Your task to perform on an android device: check data usage Image 0: 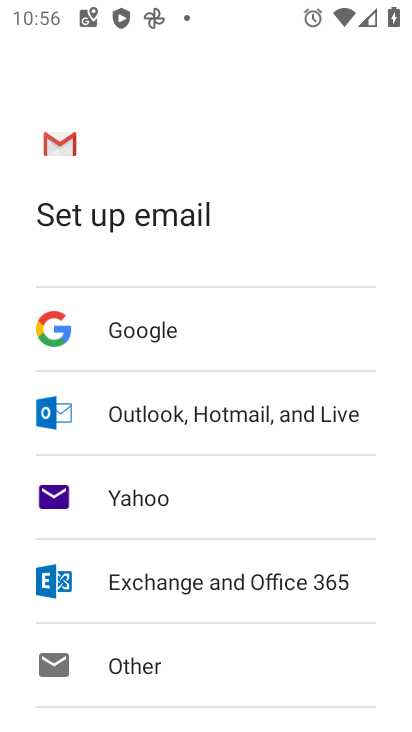
Step 0: press home button
Your task to perform on an android device: check data usage Image 1: 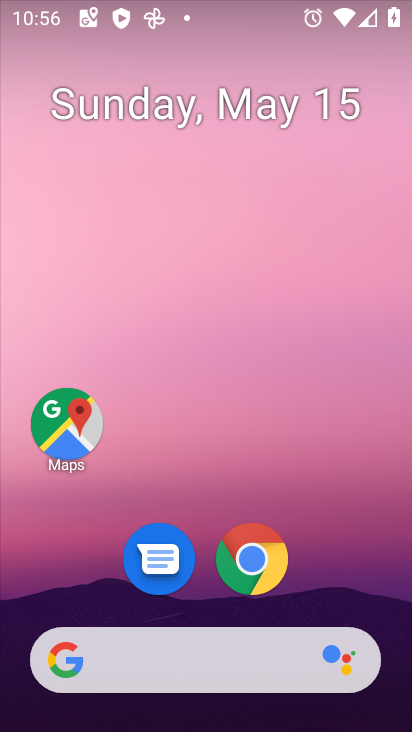
Step 1: click (270, 567)
Your task to perform on an android device: check data usage Image 2: 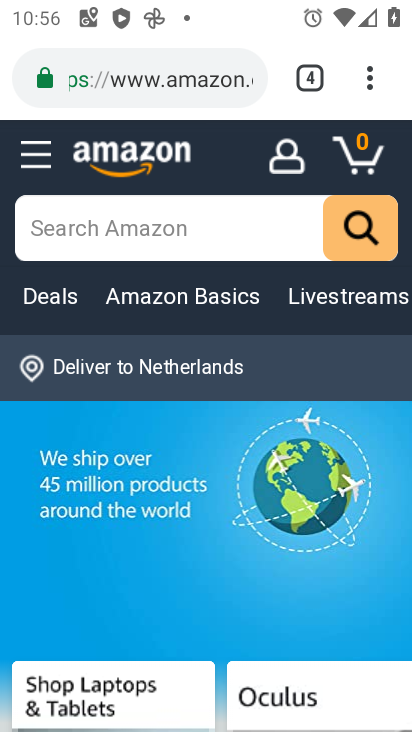
Step 2: click (369, 91)
Your task to perform on an android device: check data usage Image 3: 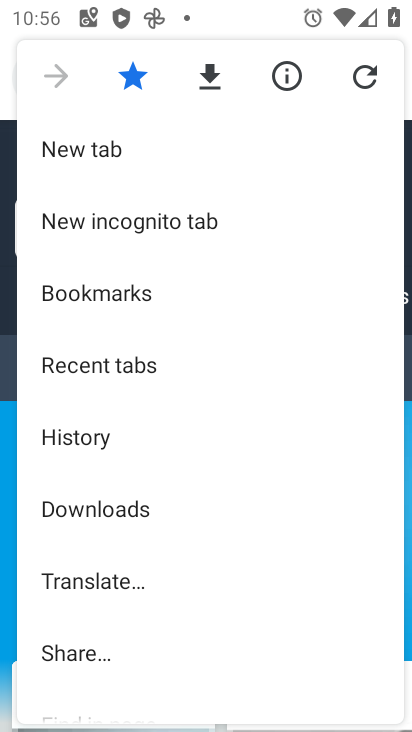
Step 3: press home button
Your task to perform on an android device: check data usage Image 4: 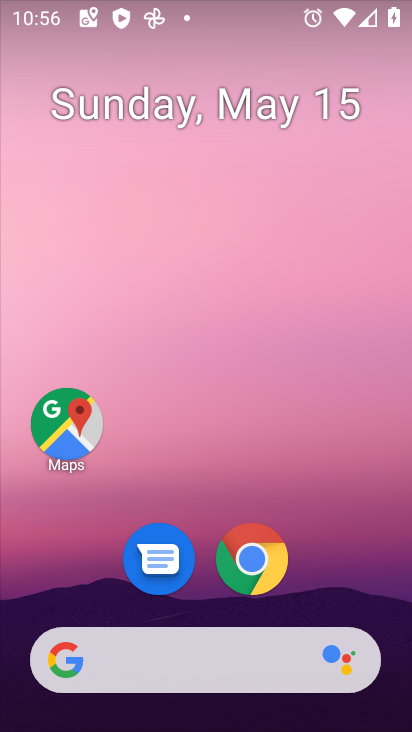
Step 4: drag from (345, 430) to (394, 172)
Your task to perform on an android device: check data usage Image 5: 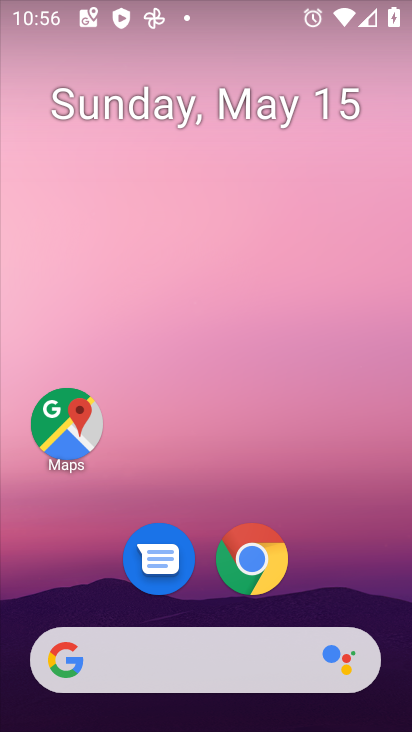
Step 5: drag from (331, 589) to (350, 146)
Your task to perform on an android device: check data usage Image 6: 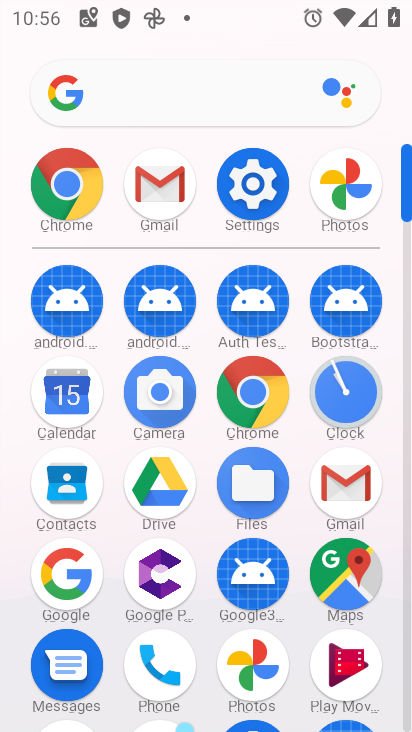
Step 6: click (265, 222)
Your task to perform on an android device: check data usage Image 7: 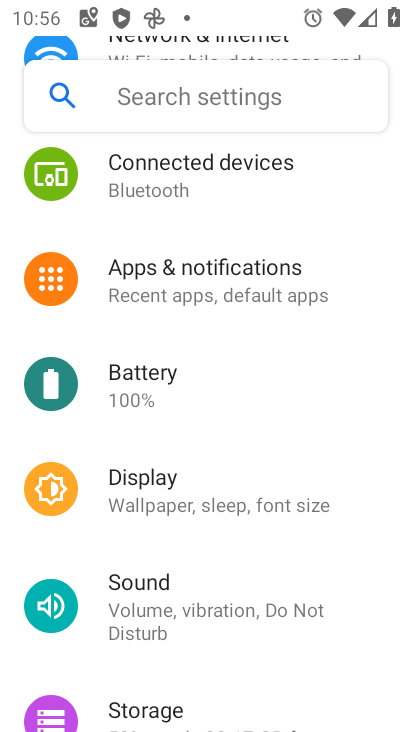
Step 7: drag from (252, 204) to (183, 620)
Your task to perform on an android device: check data usage Image 8: 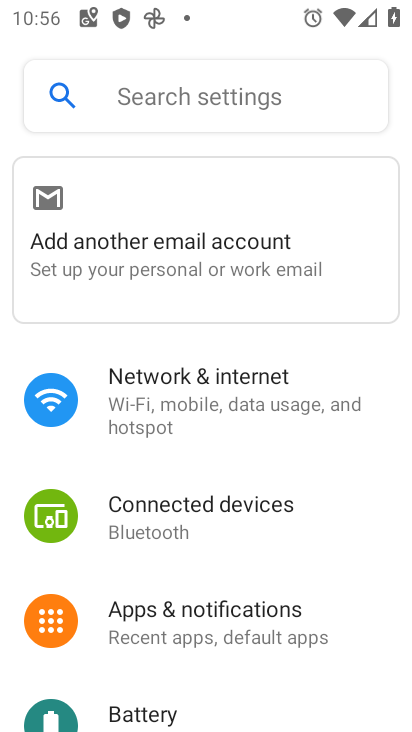
Step 8: click (196, 400)
Your task to perform on an android device: check data usage Image 9: 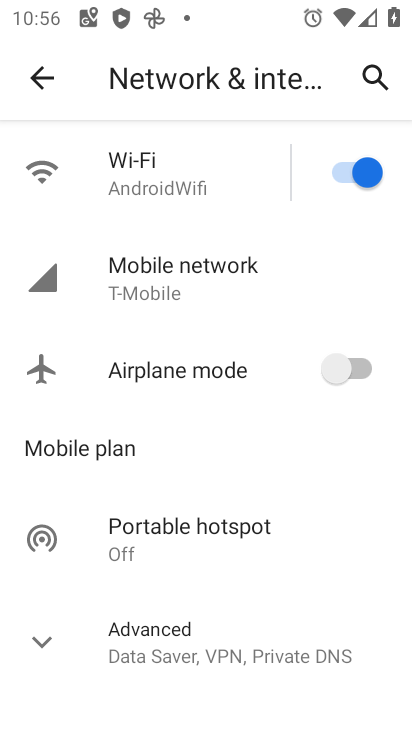
Step 9: click (188, 311)
Your task to perform on an android device: check data usage Image 10: 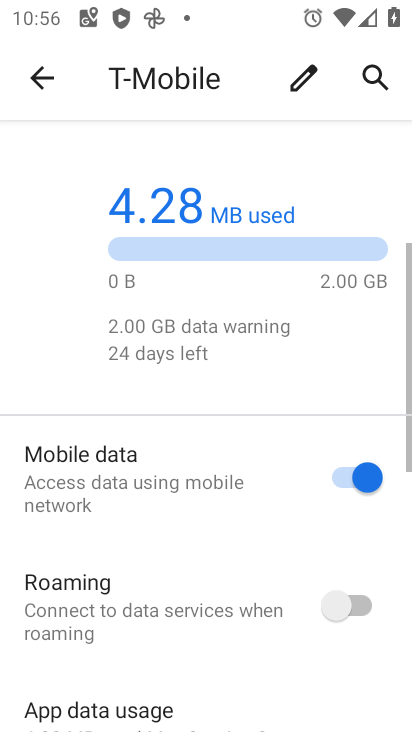
Step 10: task complete